Your task to perform on an android device: turn off priority inbox in the gmail app Image 0: 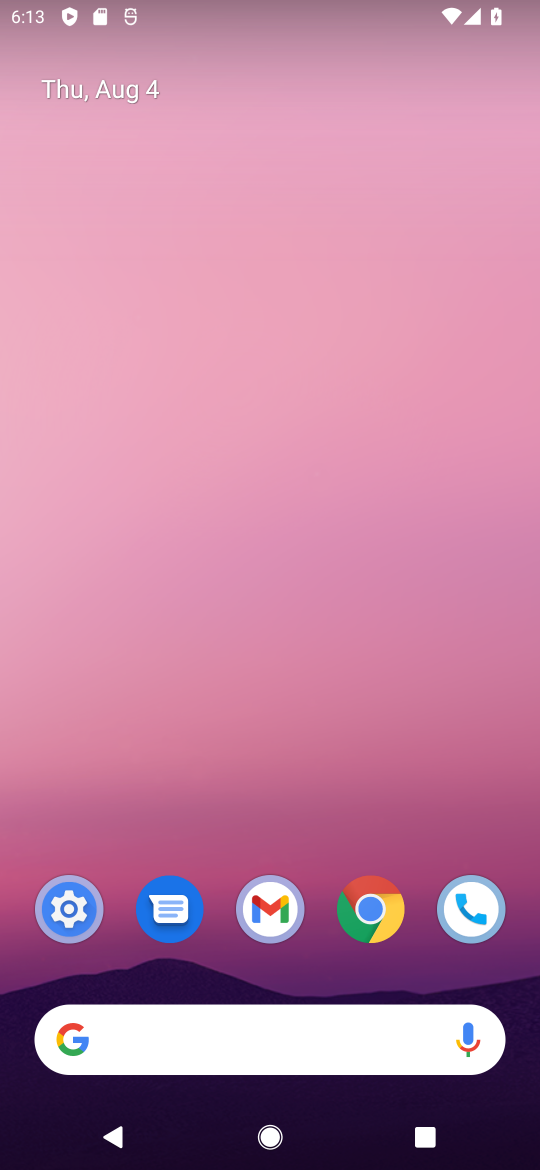
Step 0: drag from (359, 754) to (388, 12)
Your task to perform on an android device: turn off priority inbox in the gmail app Image 1: 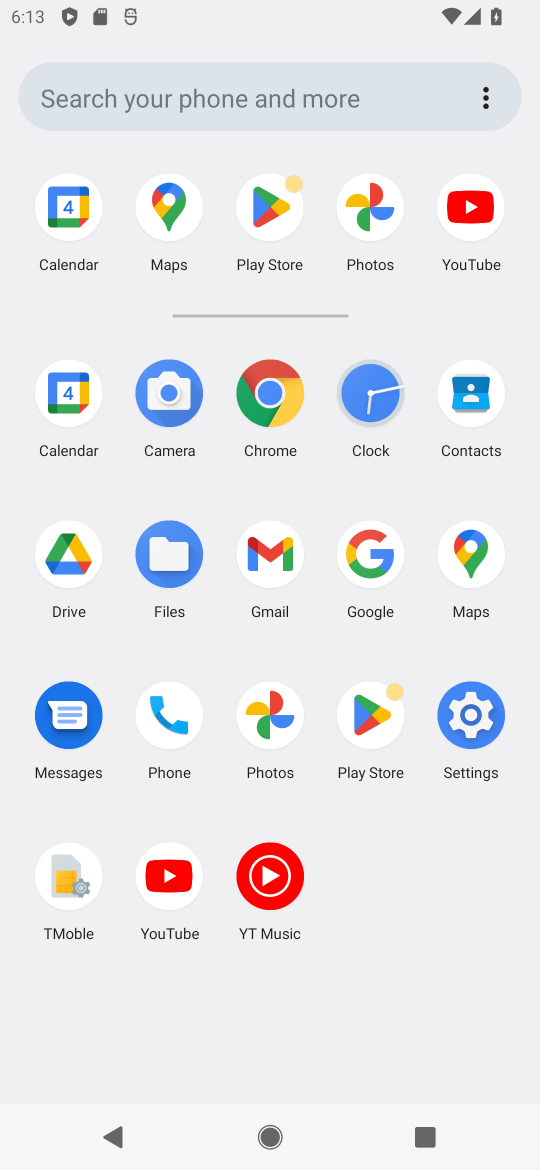
Step 1: click (272, 567)
Your task to perform on an android device: turn off priority inbox in the gmail app Image 2: 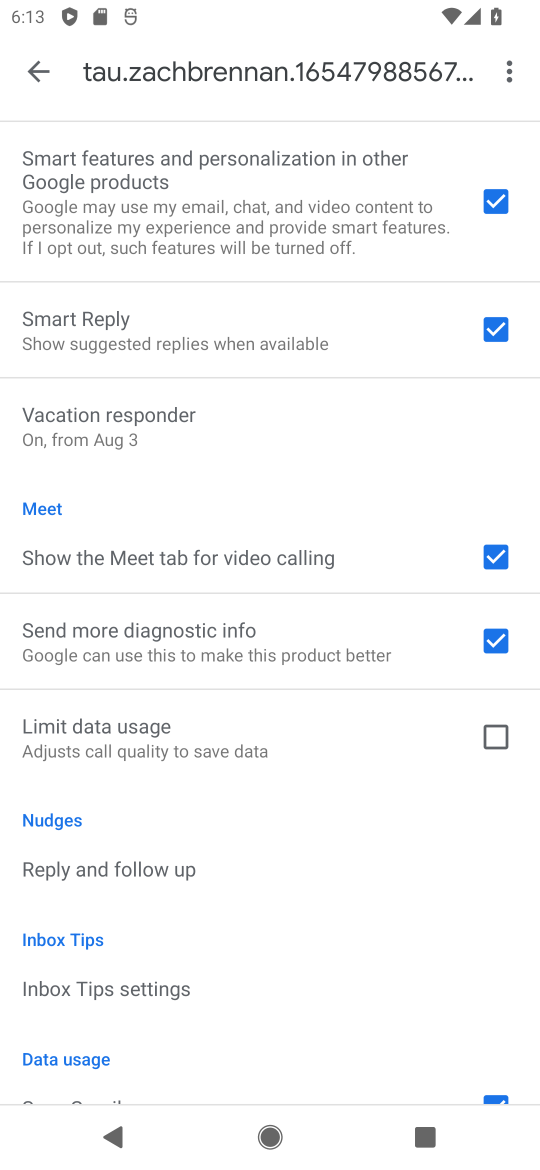
Step 2: drag from (176, 403) to (203, 917)
Your task to perform on an android device: turn off priority inbox in the gmail app Image 3: 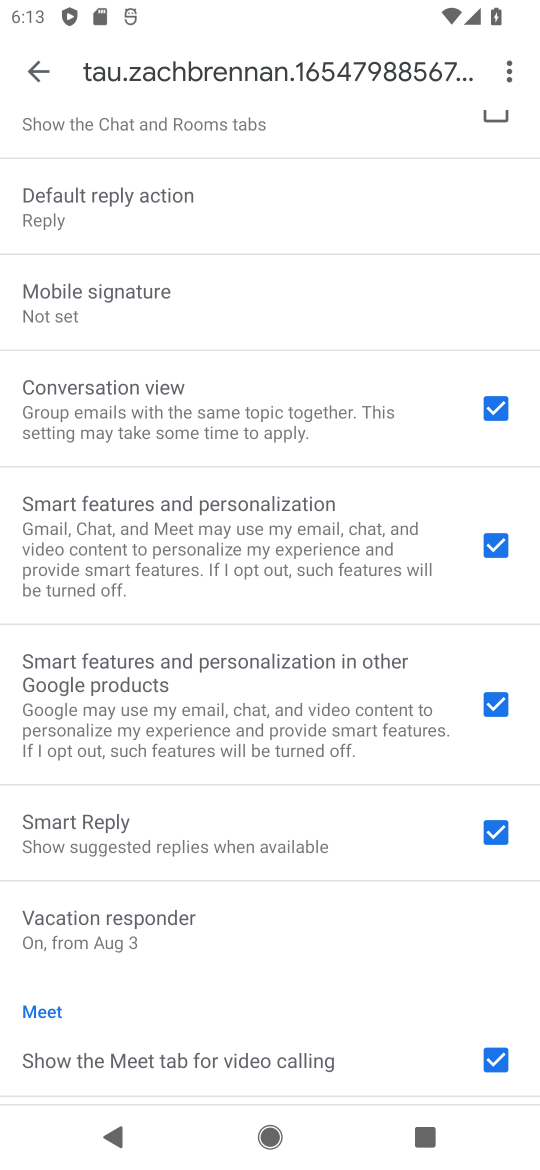
Step 3: drag from (170, 388) to (205, 979)
Your task to perform on an android device: turn off priority inbox in the gmail app Image 4: 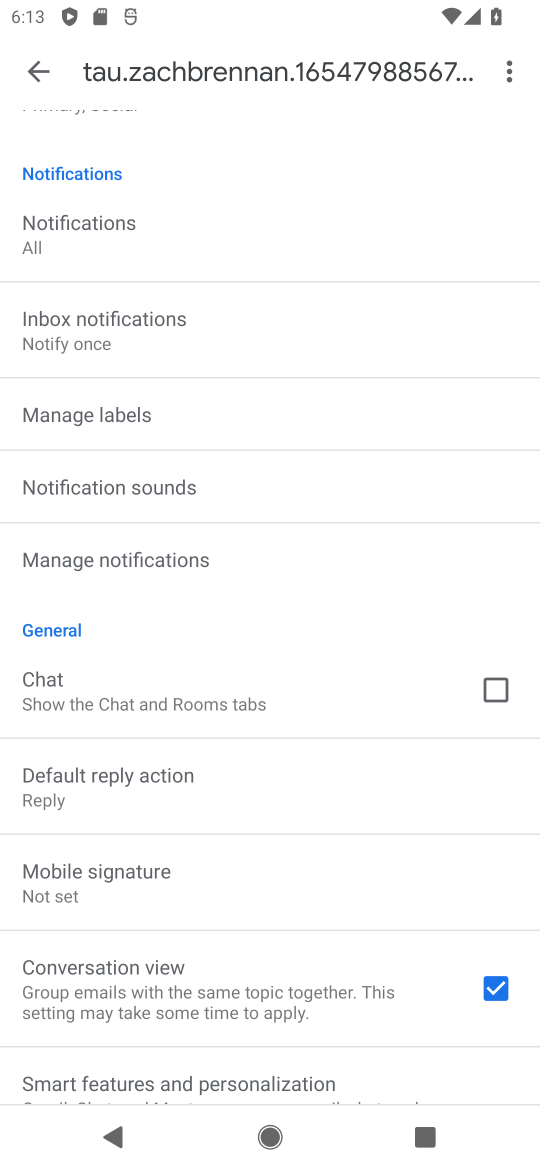
Step 4: drag from (231, 413) to (284, 914)
Your task to perform on an android device: turn off priority inbox in the gmail app Image 5: 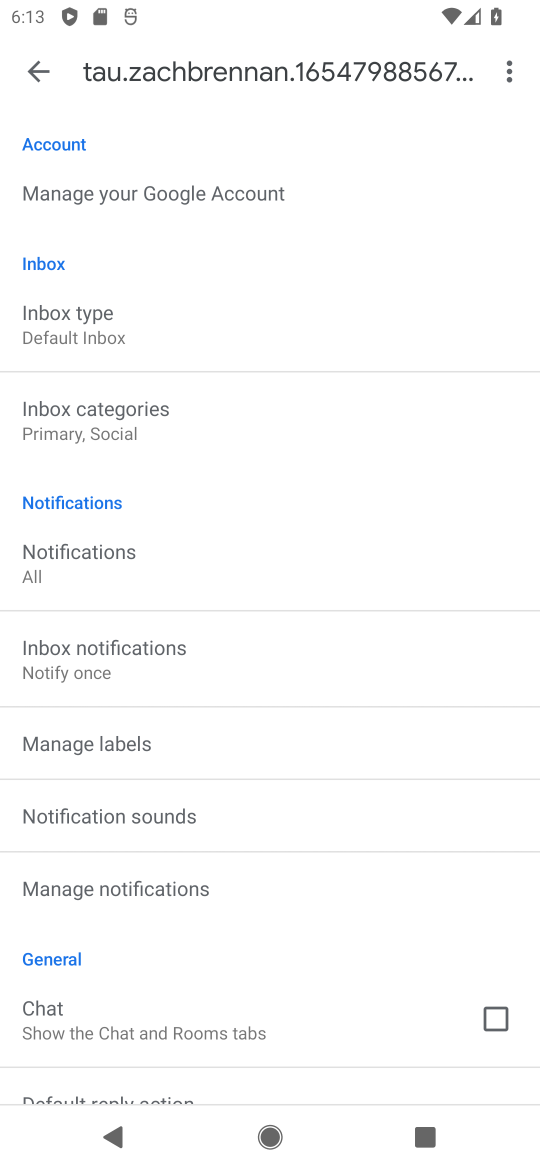
Step 5: click (91, 419)
Your task to perform on an android device: turn off priority inbox in the gmail app Image 6: 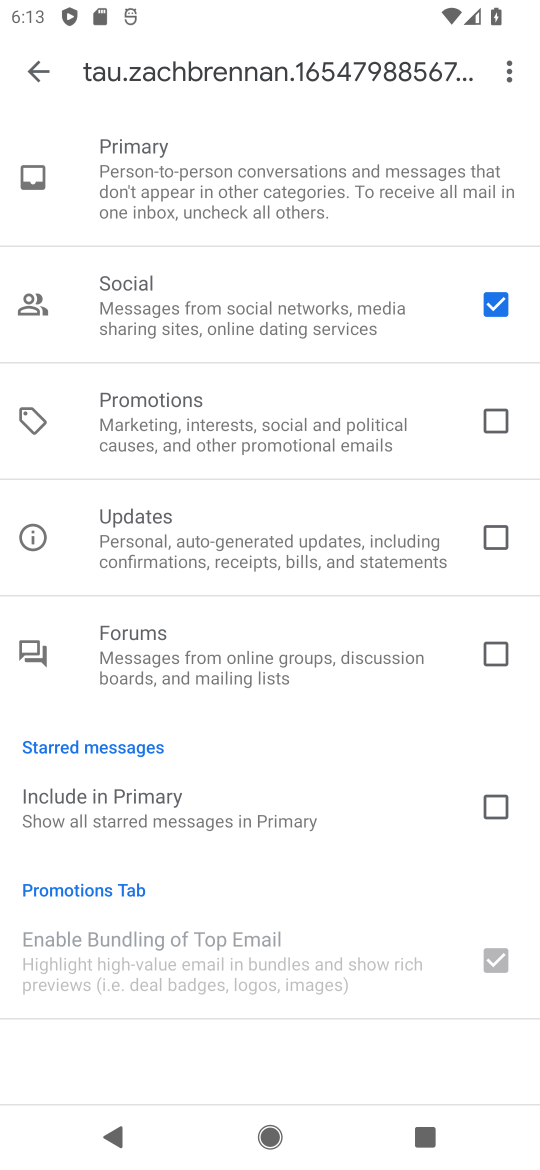
Step 6: click (23, 78)
Your task to perform on an android device: turn off priority inbox in the gmail app Image 7: 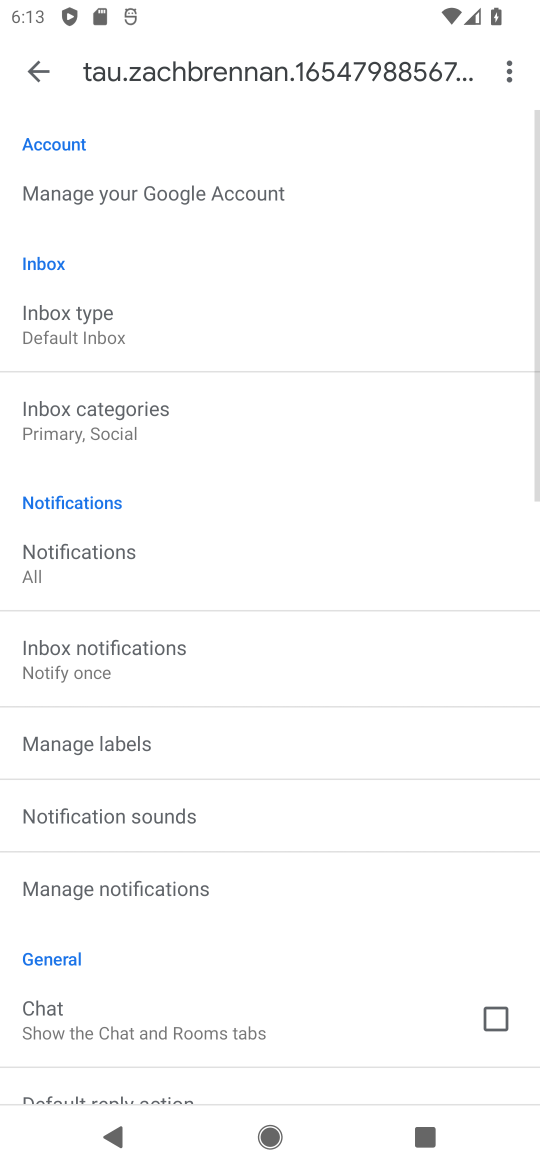
Step 7: click (122, 304)
Your task to perform on an android device: turn off priority inbox in the gmail app Image 8: 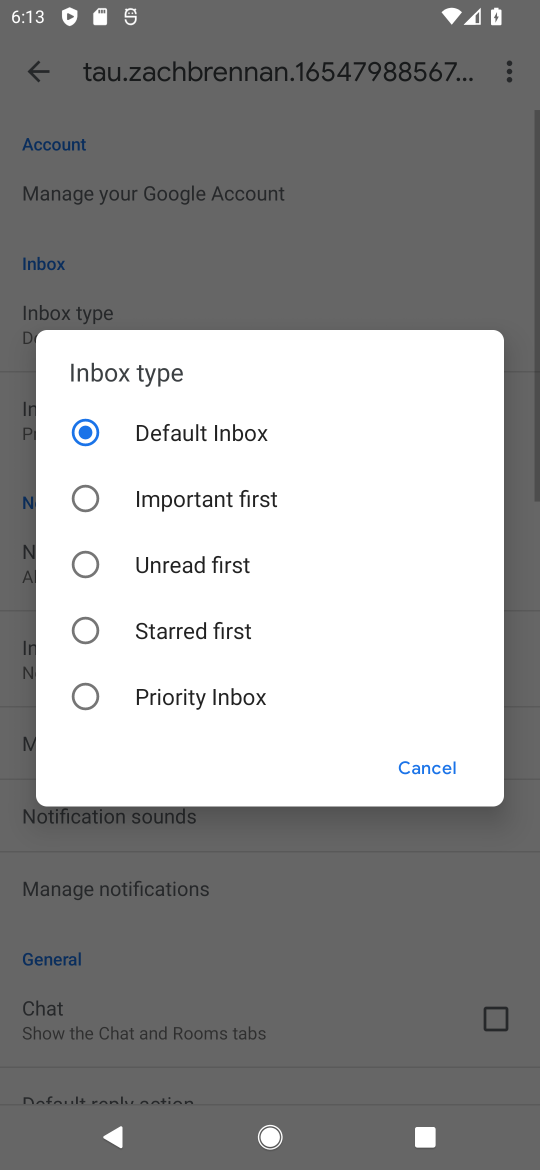
Step 8: task complete